Your task to perform on an android device: open app "YouTube Kids" (install if not already installed) and enter user name: "atmospheric@gmail.com" and password: "raze" Image 0: 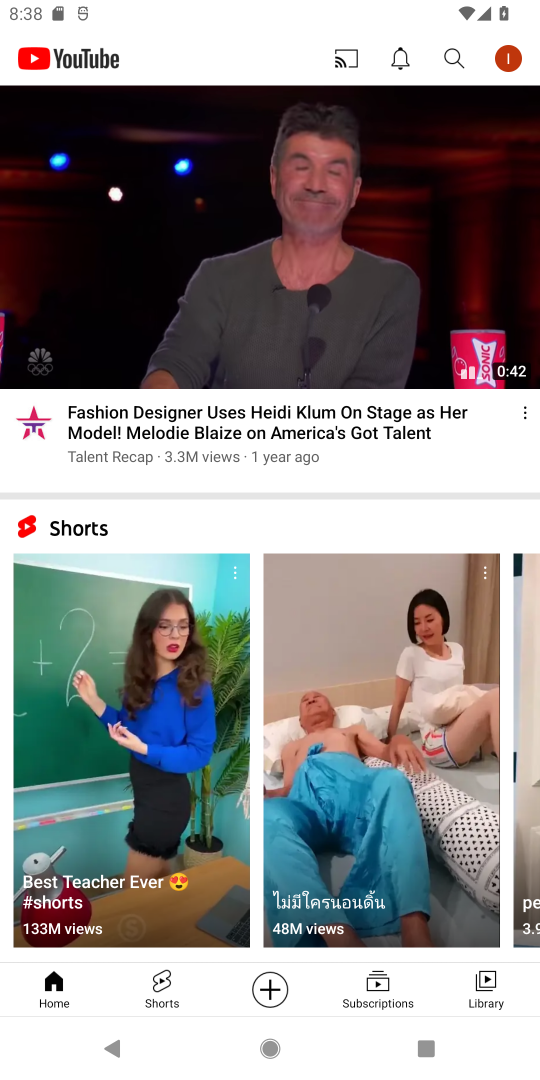
Step 0: press home button
Your task to perform on an android device: open app "YouTube Kids" (install if not already installed) and enter user name: "atmospheric@gmail.com" and password: "raze" Image 1: 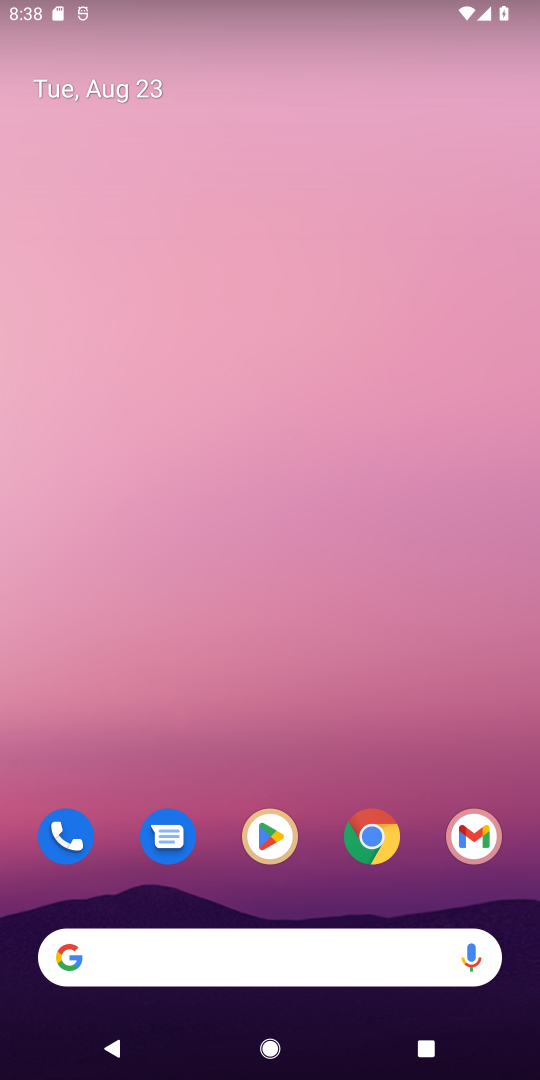
Step 1: click (275, 837)
Your task to perform on an android device: open app "YouTube Kids" (install if not already installed) and enter user name: "atmospheric@gmail.com" and password: "raze" Image 2: 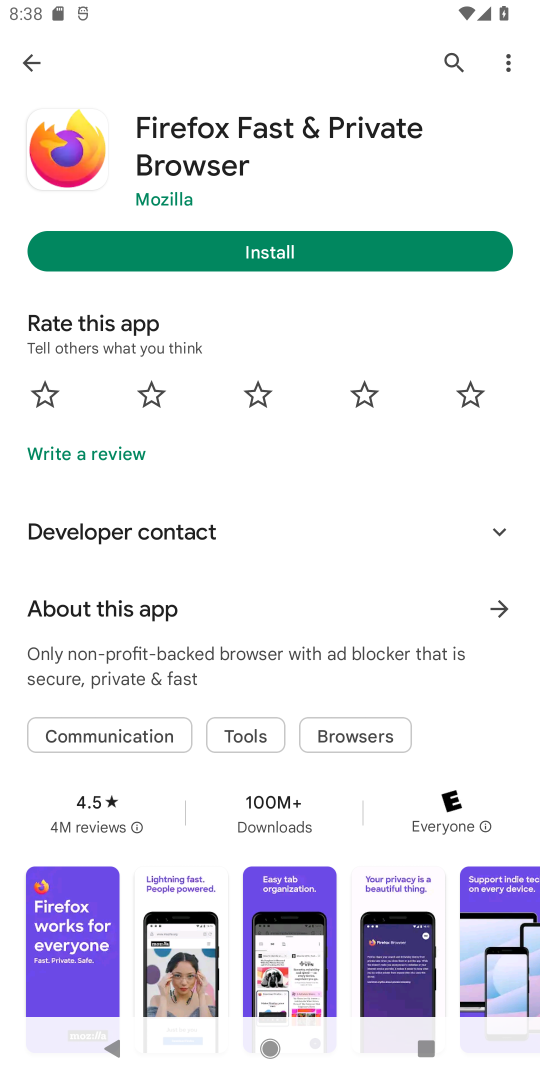
Step 2: click (447, 49)
Your task to perform on an android device: open app "YouTube Kids" (install if not already installed) and enter user name: "atmospheric@gmail.com" and password: "raze" Image 3: 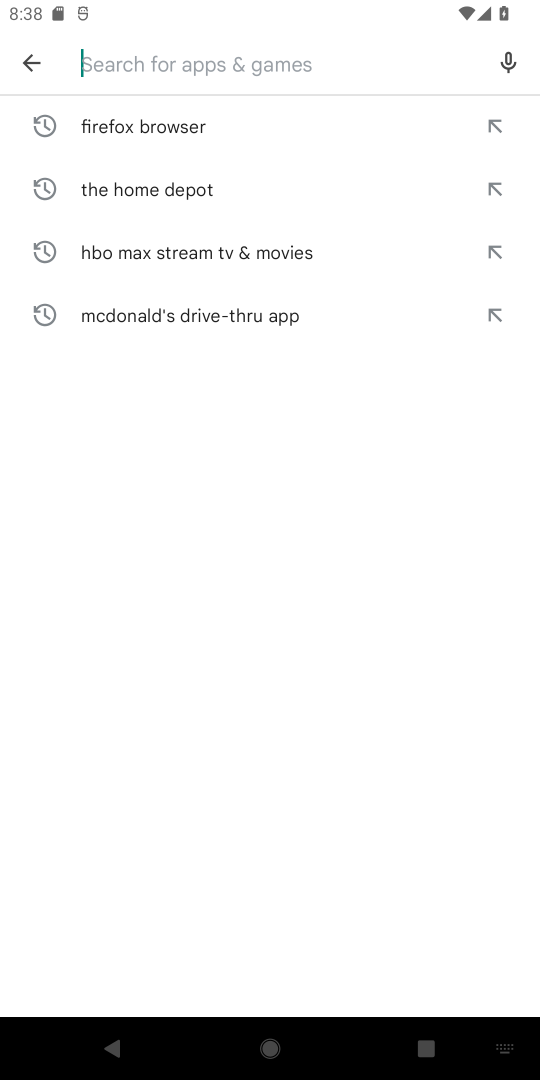
Step 3: type "YouTube Kids"
Your task to perform on an android device: open app "YouTube Kids" (install if not already installed) and enter user name: "atmospheric@gmail.com" and password: "raze" Image 4: 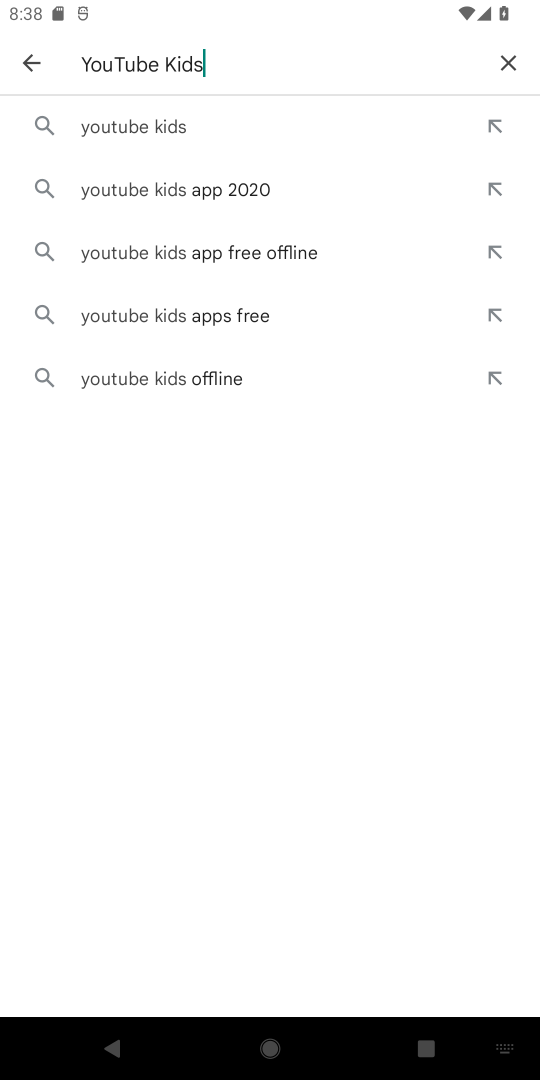
Step 4: click (136, 124)
Your task to perform on an android device: open app "YouTube Kids" (install if not already installed) and enter user name: "atmospheric@gmail.com" and password: "raze" Image 5: 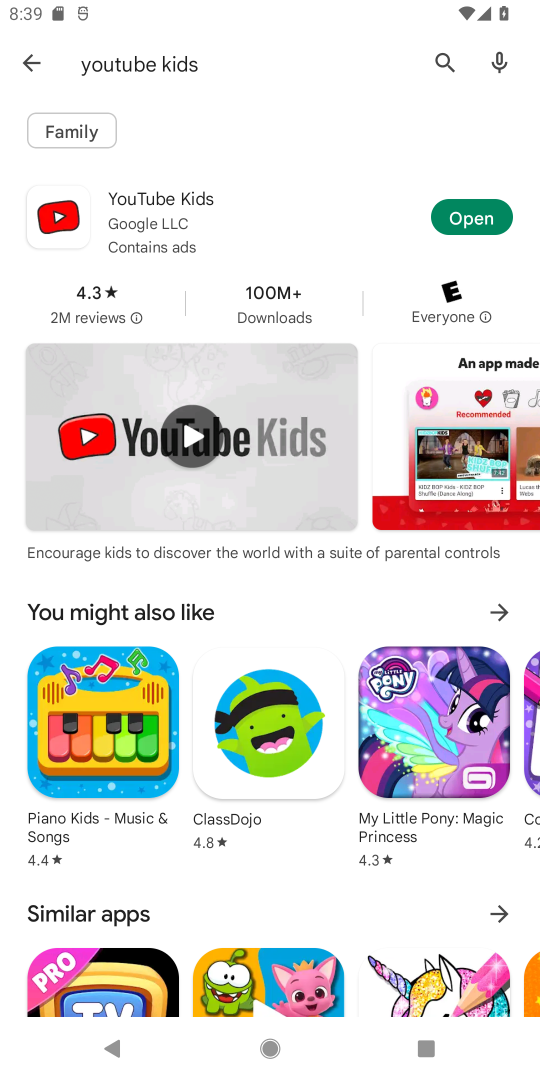
Step 5: click (454, 217)
Your task to perform on an android device: open app "YouTube Kids" (install if not already installed) and enter user name: "atmospheric@gmail.com" and password: "raze" Image 6: 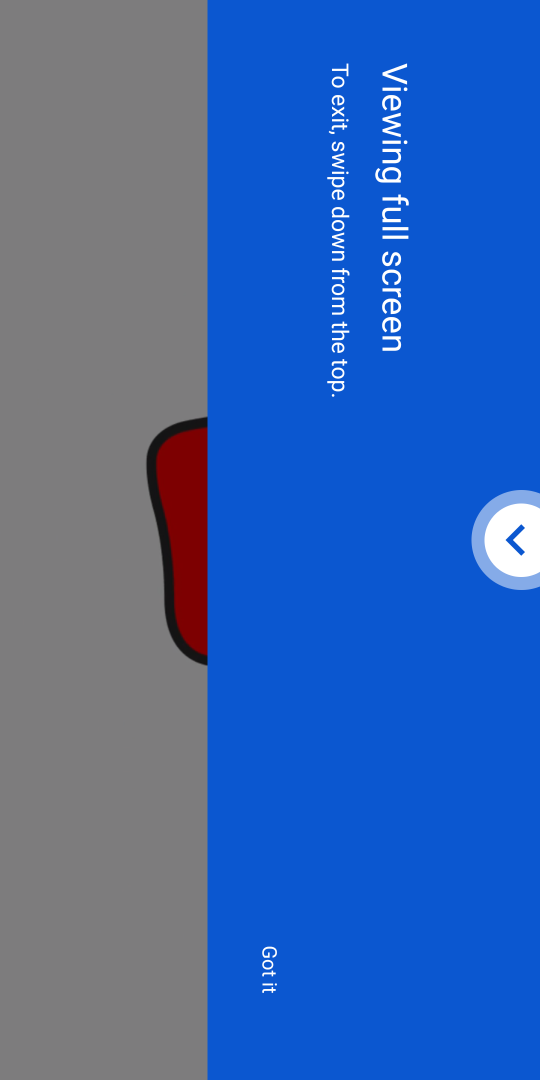
Step 6: click (272, 969)
Your task to perform on an android device: open app "YouTube Kids" (install if not already installed) and enter user name: "atmospheric@gmail.com" and password: "raze" Image 7: 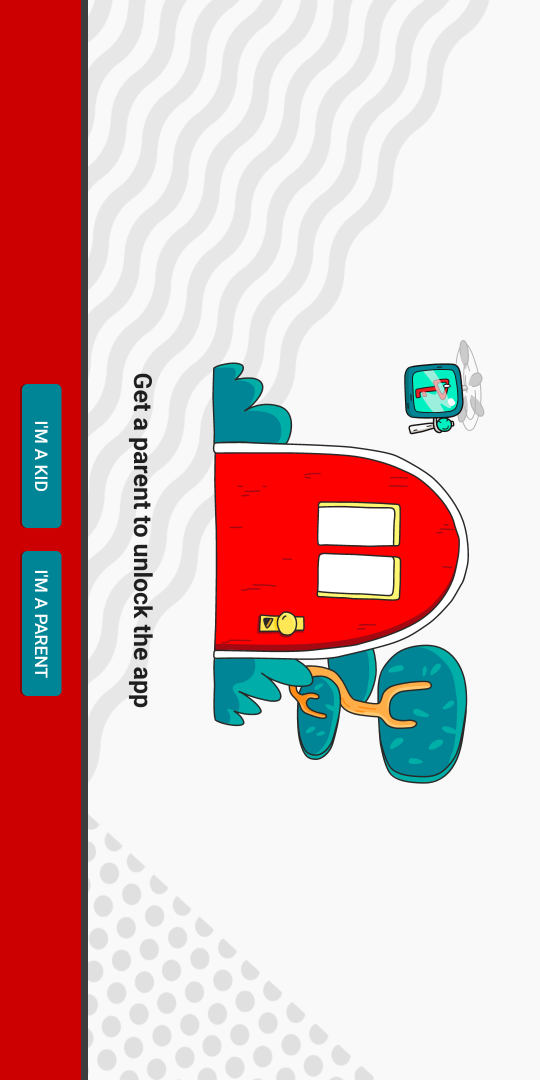
Step 7: task complete